Your task to perform on an android device: turn on the 12-hour format for clock Image 0: 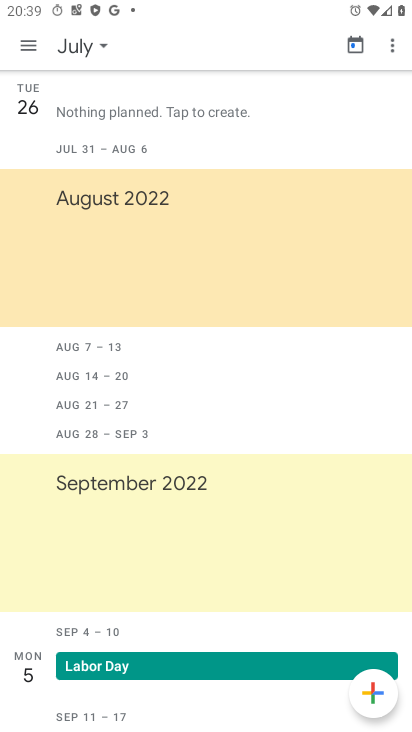
Step 0: press home button
Your task to perform on an android device: turn on the 12-hour format for clock Image 1: 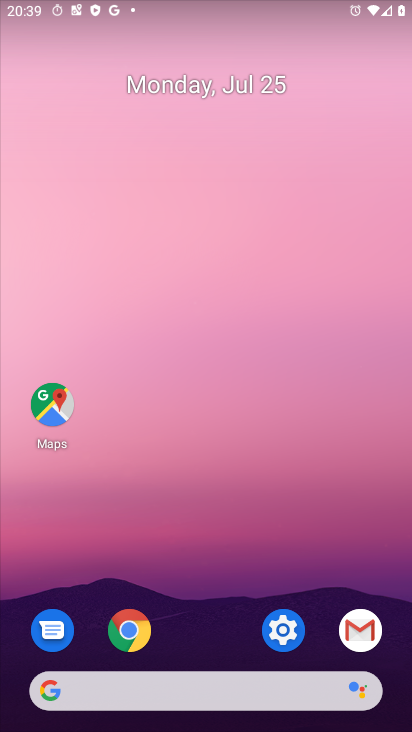
Step 1: drag from (230, 715) to (305, 257)
Your task to perform on an android device: turn on the 12-hour format for clock Image 2: 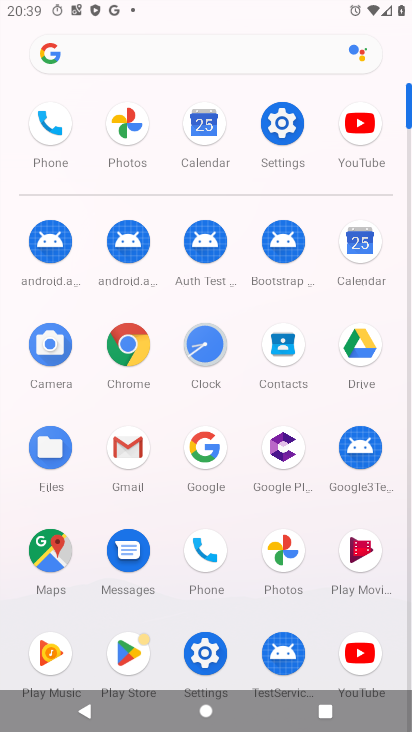
Step 2: click (210, 345)
Your task to perform on an android device: turn on the 12-hour format for clock Image 3: 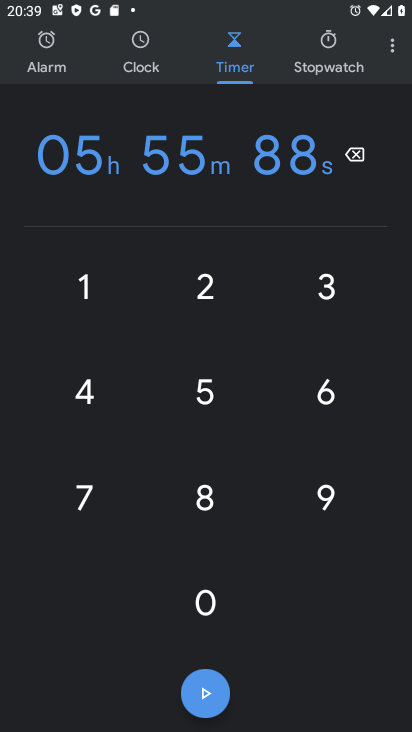
Step 3: click (392, 51)
Your task to perform on an android device: turn on the 12-hour format for clock Image 4: 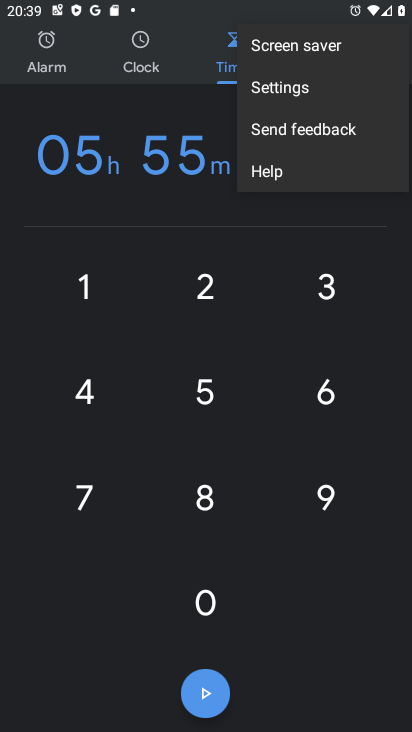
Step 4: click (304, 87)
Your task to perform on an android device: turn on the 12-hour format for clock Image 5: 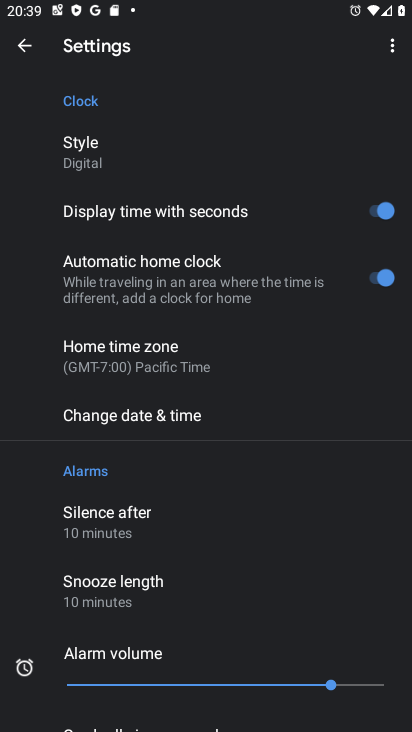
Step 5: click (125, 417)
Your task to perform on an android device: turn on the 12-hour format for clock Image 6: 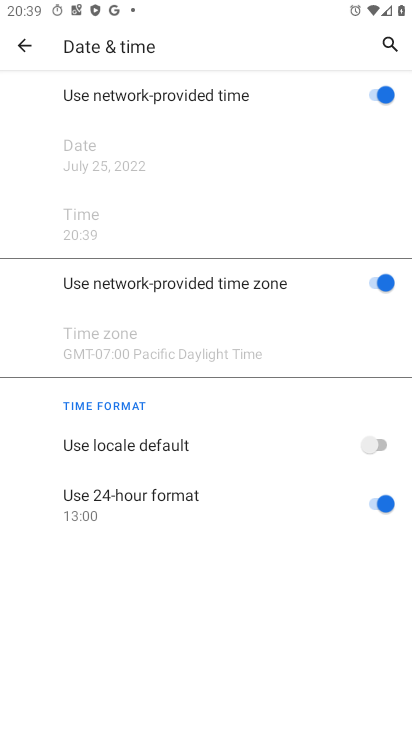
Step 6: click (352, 503)
Your task to perform on an android device: turn on the 12-hour format for clock Image 7: 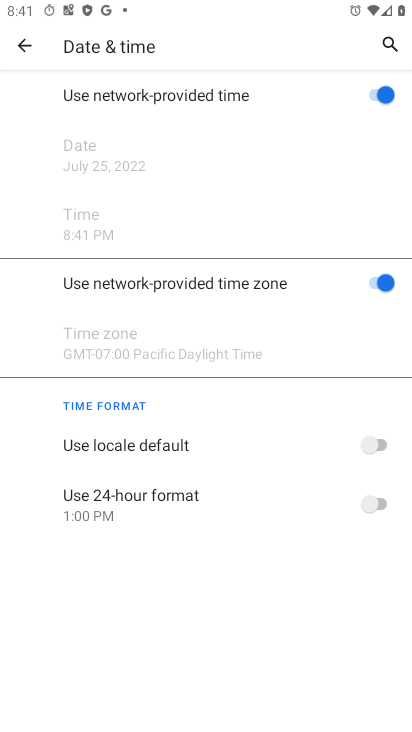
Step 7: task complete